Your task to perform on an android device: Play some music on YouTube Image 0: 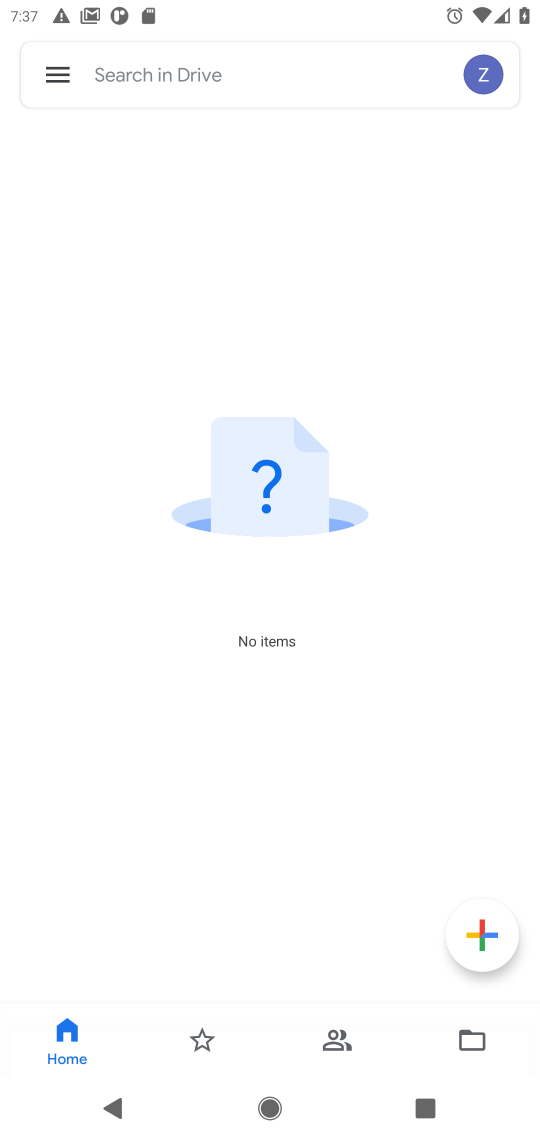
Step 0: press home button
Your task to perform on an android device: Play some music on YouTube Image 1: 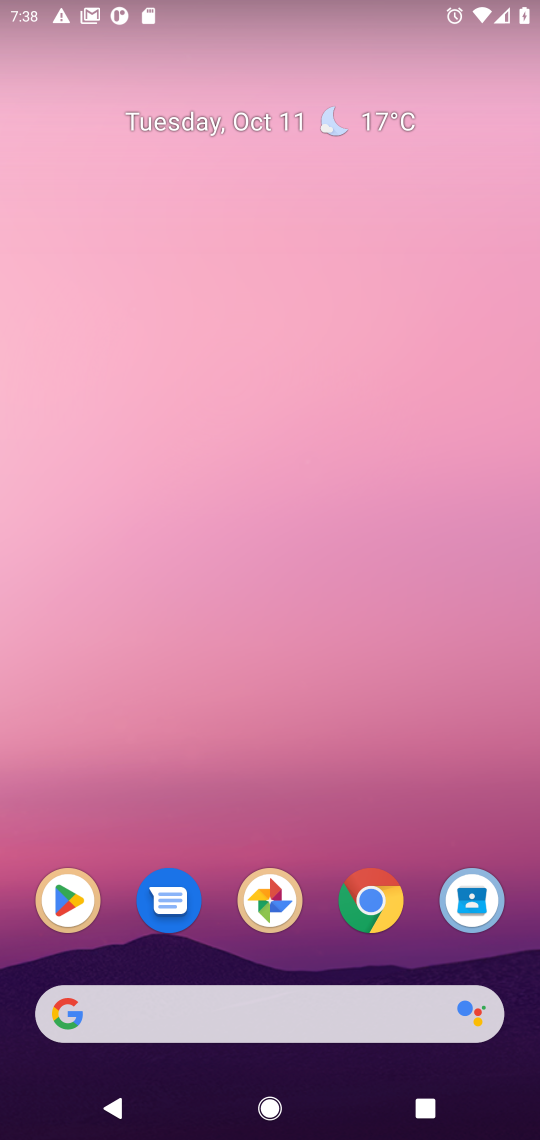
Step 1: drag from (278, 1015) to (410, 217)
Your task to perform on an android device: Play some music on YouTube Image 2: 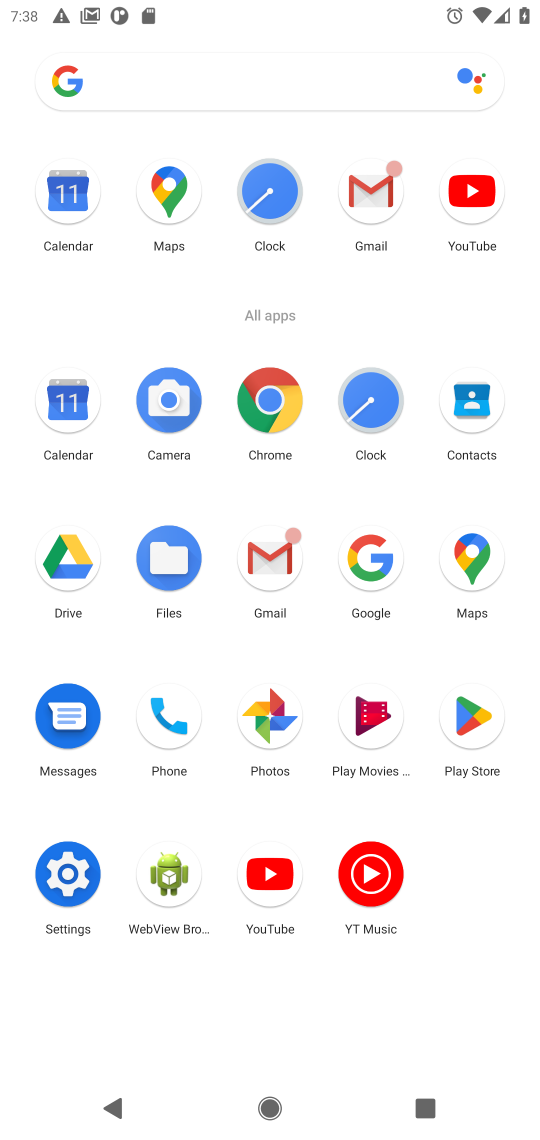
Step 2: click (465, 195)
Your task to perform on an android device: Play some music on YouTube Image 3: 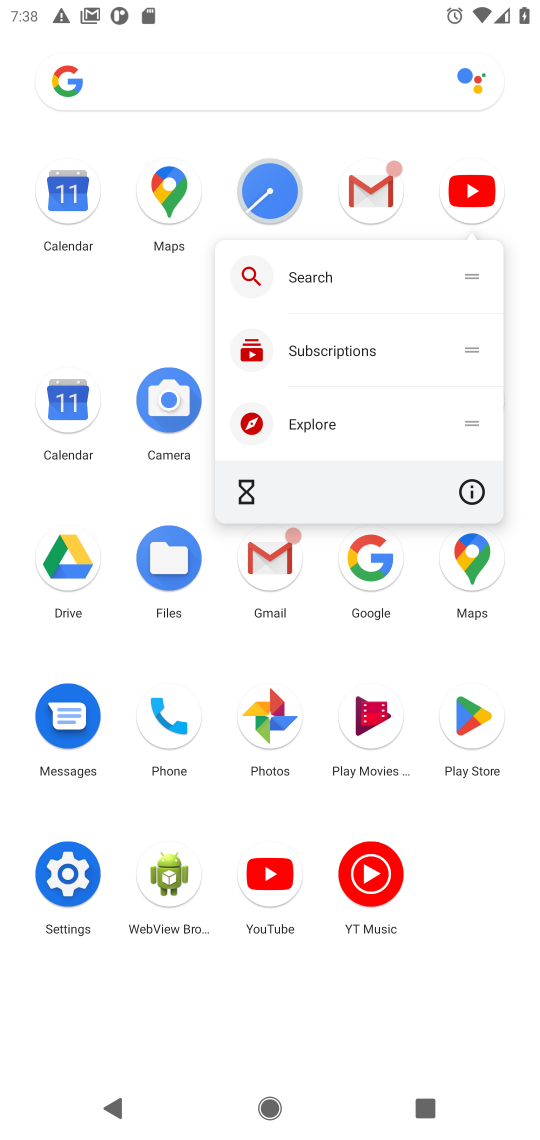
Step 3: click (468, 197)
Your task to perform on an android device: Play some music on YouTube Image 4: 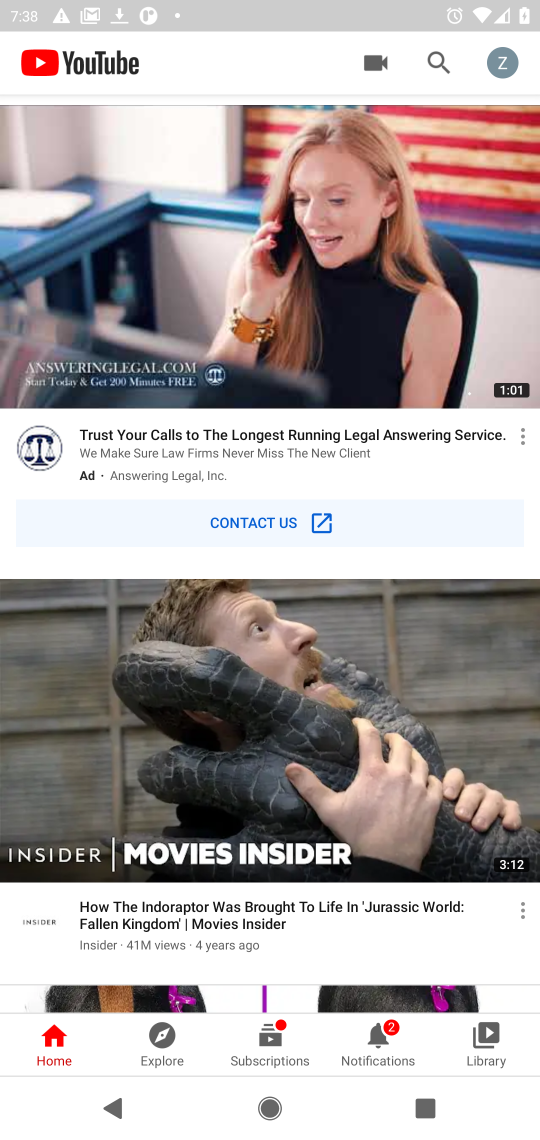
Step 4: click (436, 59)
Your task to perform on an android device: Play some music on YouTube Image 5: 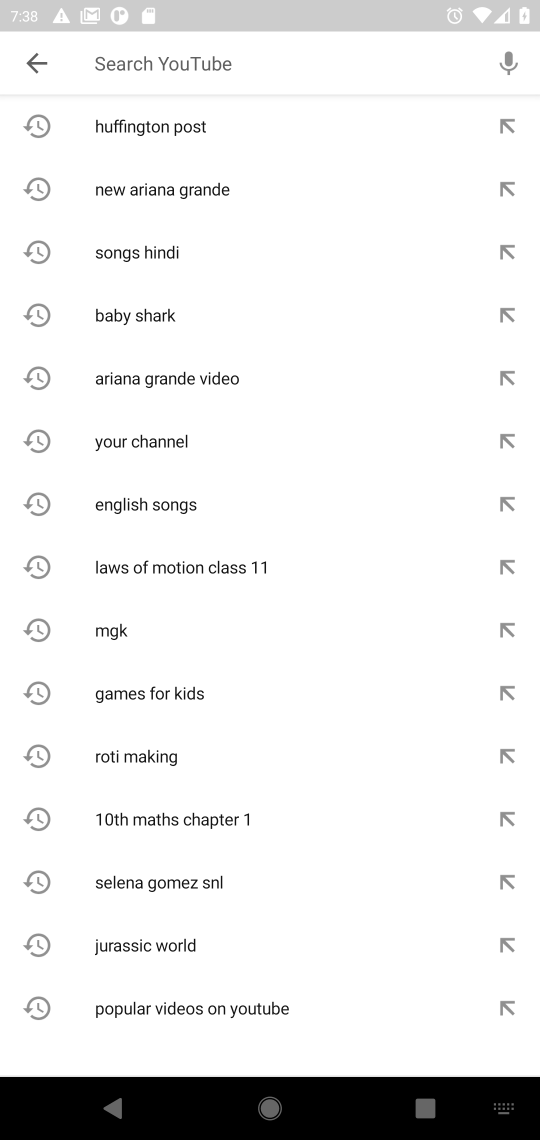
Step 5: type "music"
Your task to perform on an android device: Play some music on YouTube Image 6: 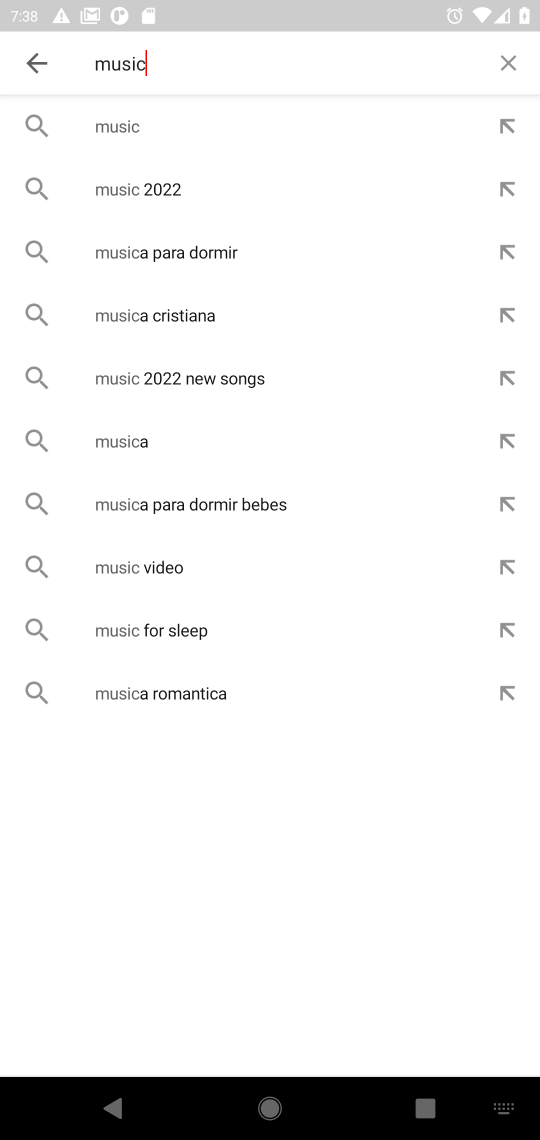
Step 6: press enter
Your task to perform on an android device: Play some music on YouTube Image 7: 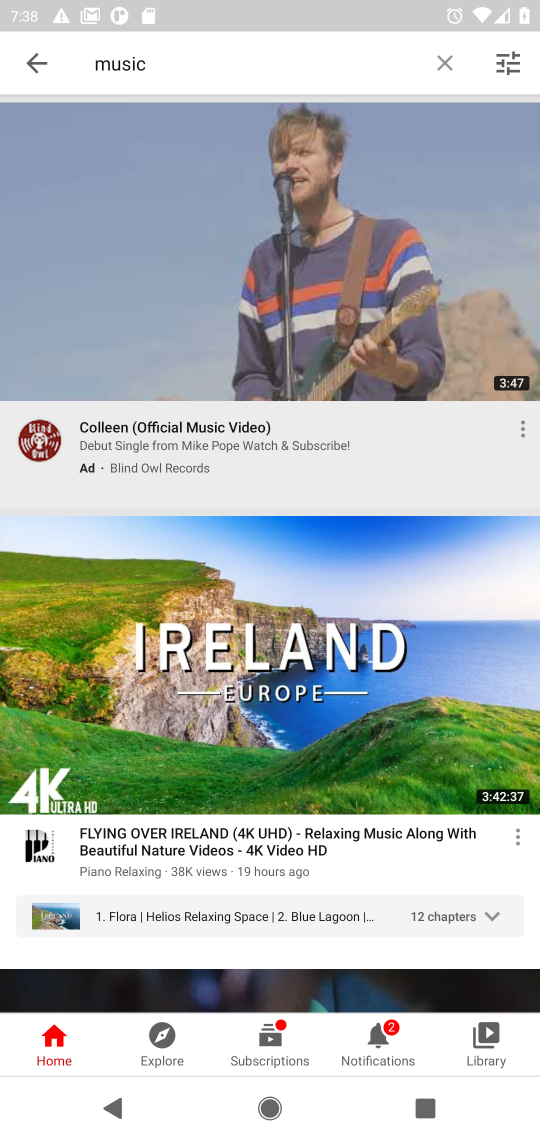
Step 7: click (272, 276)
Your task to perform on an android device: Play some music on YouTube Image 8: 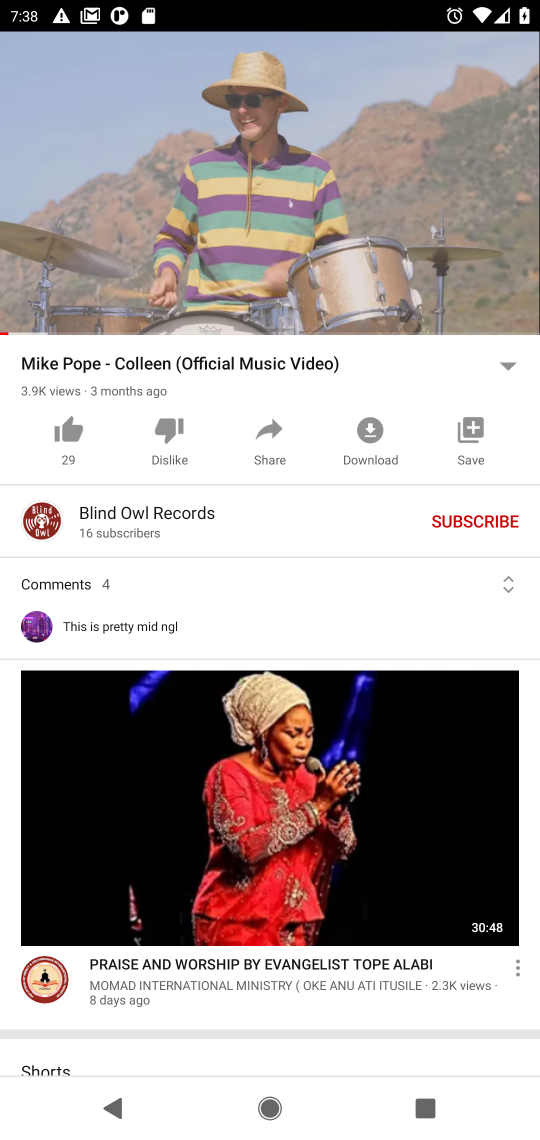
Step 8: click (282, 169)
Your task to perform on an android device: Play some music on YouTube Image 9: 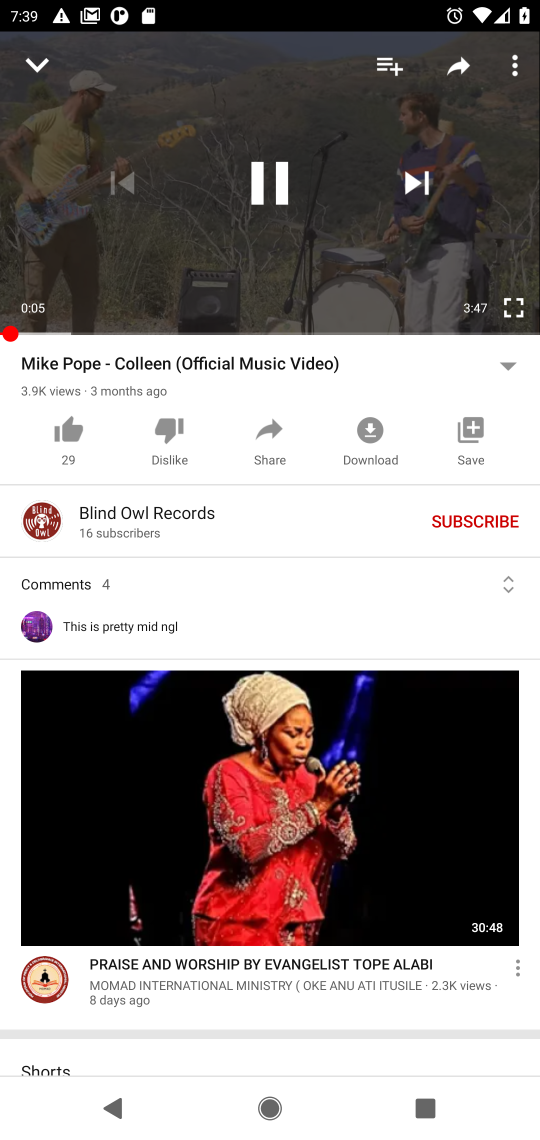
Step 9: click (275, 195)
Your task to perform on an android device: Play some music on YouTube Image 10: 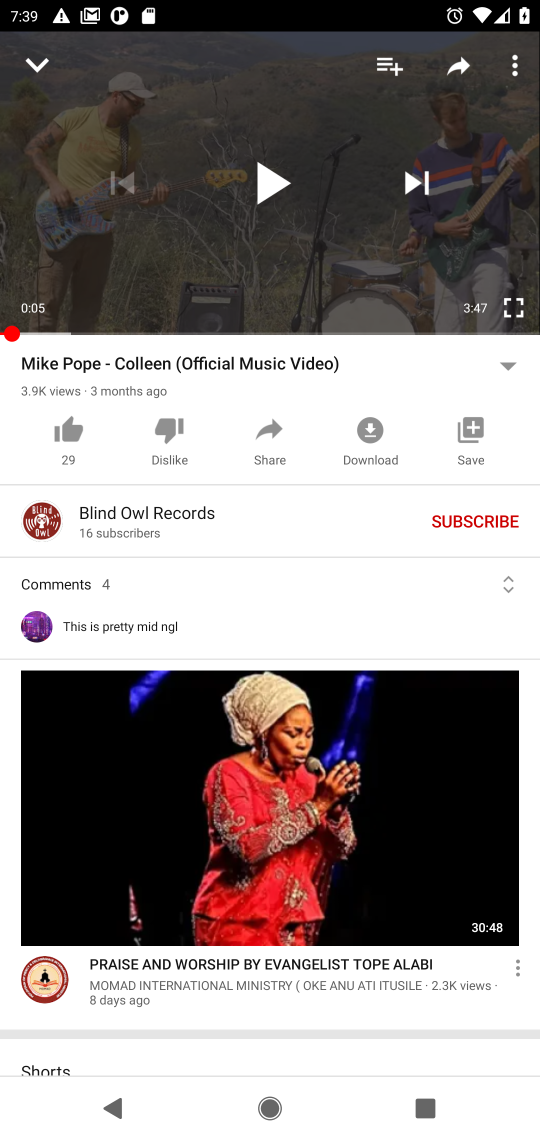
Step 10: task complete